Your task to perform on an android device: Do I have any events today? Image 0: 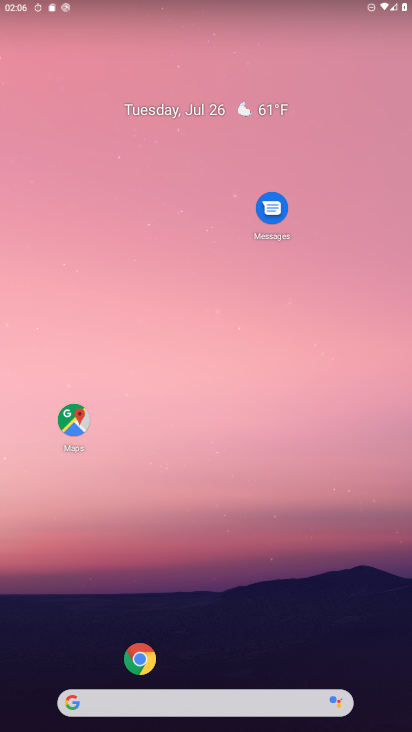
Step 0: drag from (382, 33) to (398, 112)
Your task to perform on an android device: Do I have any events today? Image 1: 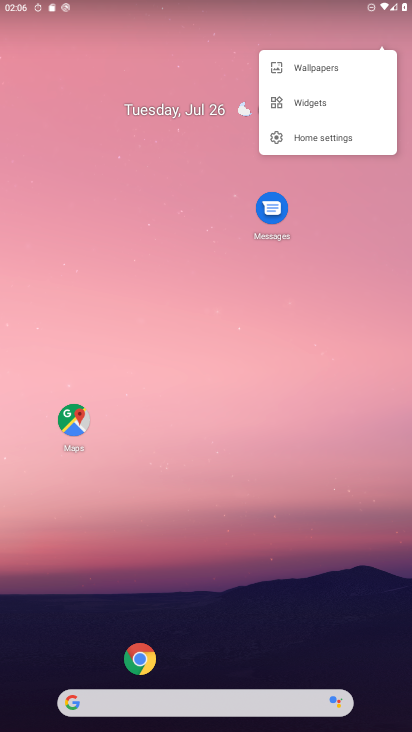
Step 1: drag from (5, 683) to (291, 692)
Your task to perform on an android device: Do I have any events today? Image 2: 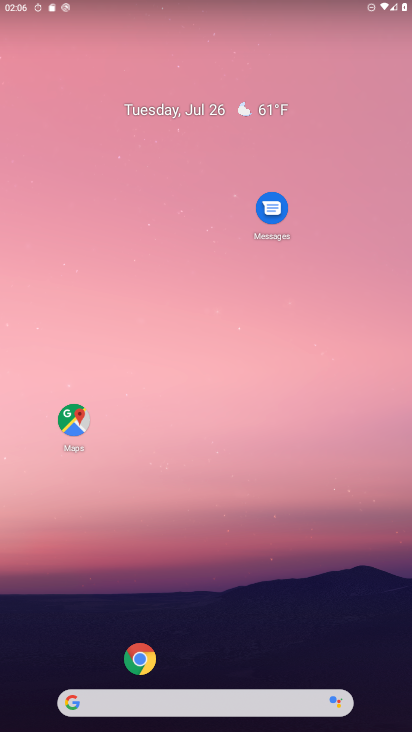
Step 2: drag from (41, 649) to (146, 337)
Your task to perform on an android device: Do I have any events today? Image 3: 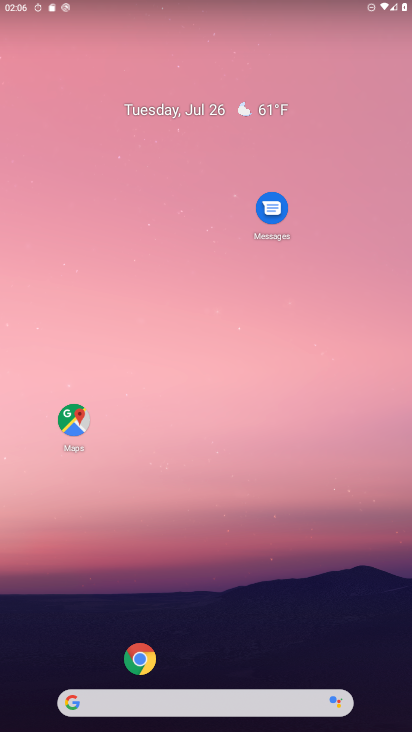
Step 3: drag from (68, 623) to (186, 189)
Your task to perform on an android device: Do I have any events today? Image 4: 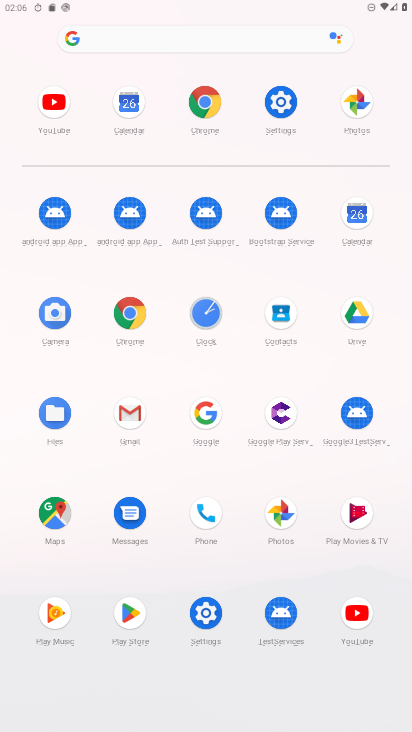
Step 4: click (360, 220)
Your task to perform on an android device: Do I have any events today? Image 5: 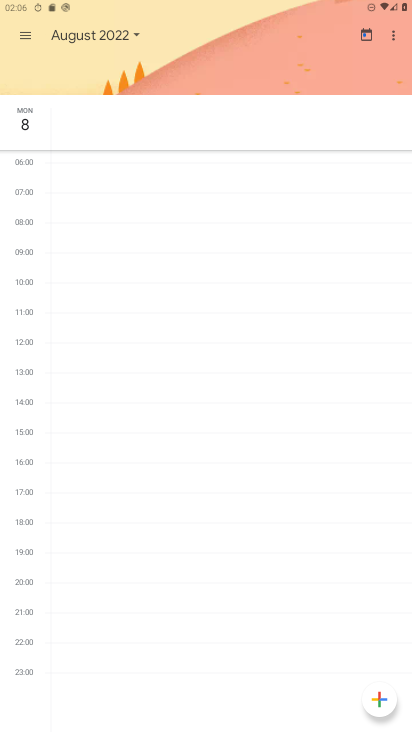
Step 5: click (117, 41)
Your task to perform on an android device: Do I have any events today? Image 6: 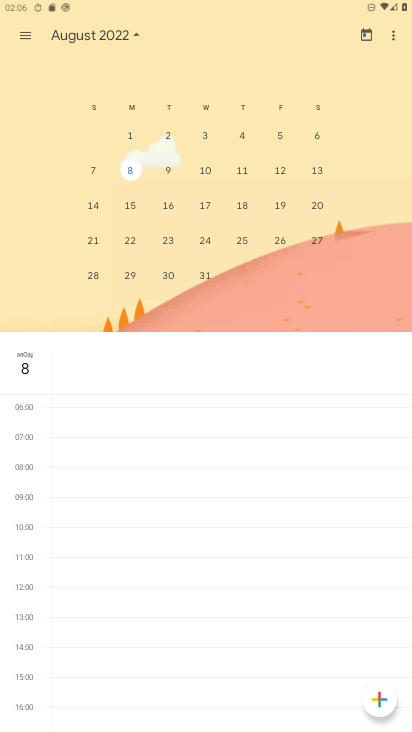
Step 6: task complete